Your task to perform on an android device: turn off translation in the chrome app Image 0: 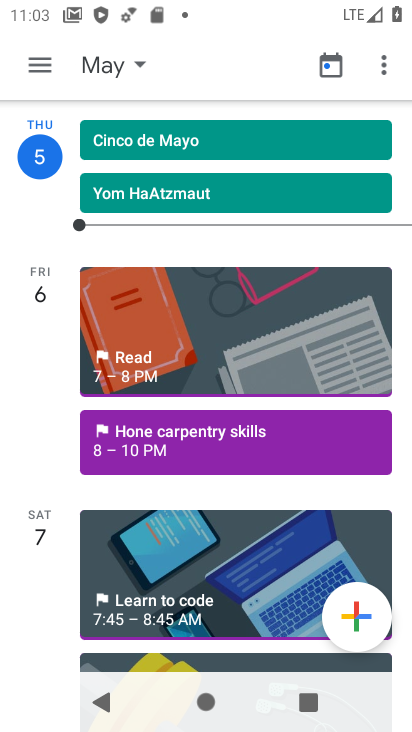
Step 0: press home button
Your task to perform on an android device: turn off translation in the chrome app Image 1: 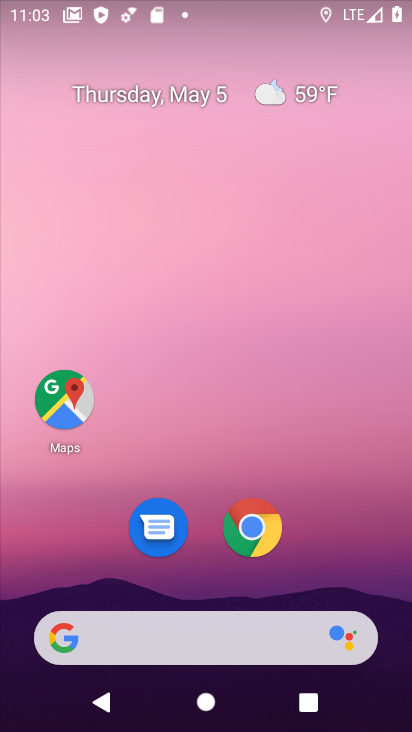
Step 1: click (265, 528)
Your task to perform on an android device: turn off translation in the chrome app Image 2: 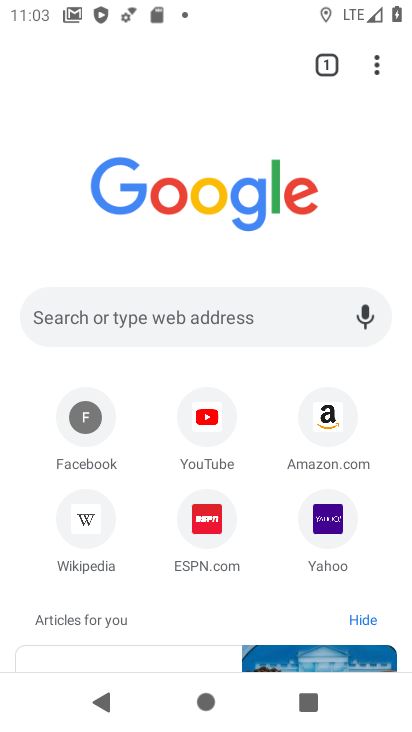
Step 2: click (374, 74)
Your task to perform on an android device: turn off translation in the chrome app Image 3: 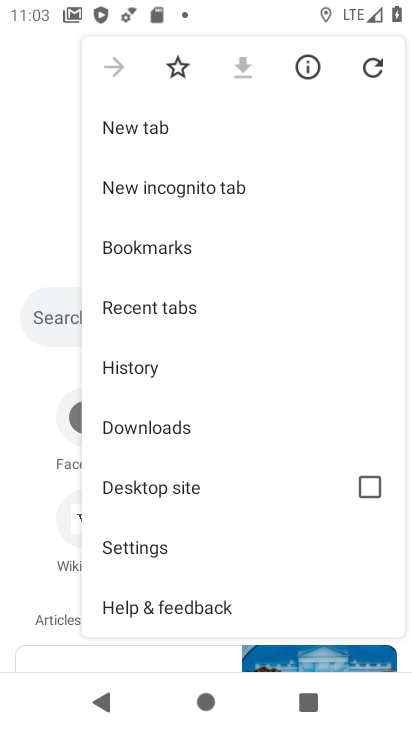
Step 3: click (164, 557)
Your task to perform on an android device: turn off translation in the chrome app Image 4: 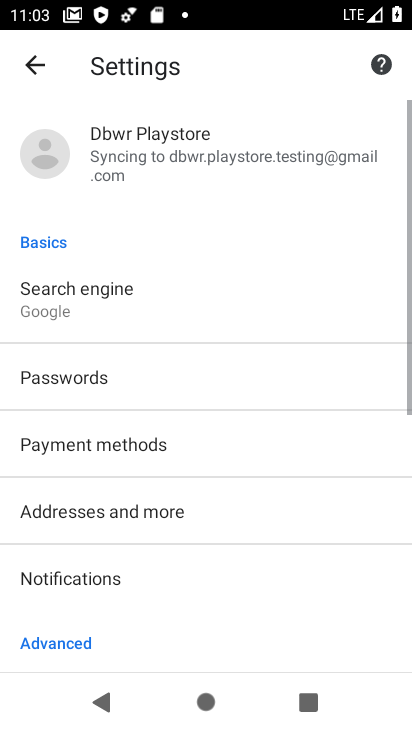
Step 4: drag from (121, 589) to (204, 231)
Your task to perform on an android device: turn off translation in the chrome app Image 5: 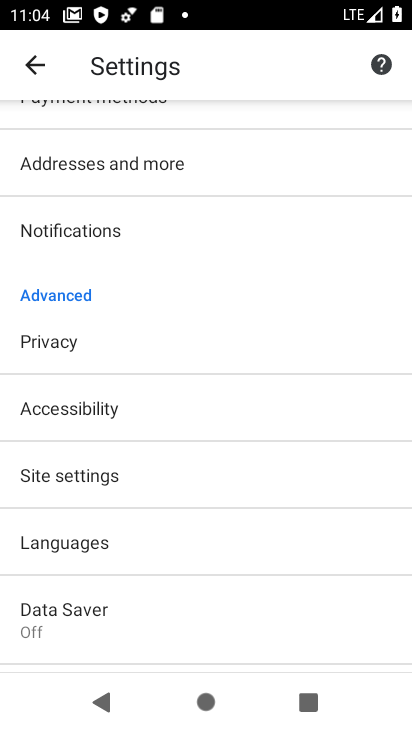
Step 5: drag from (130, 616) to (164, 438)
Your task to perform on an android device: turn off translation in the chrome app Image 6: 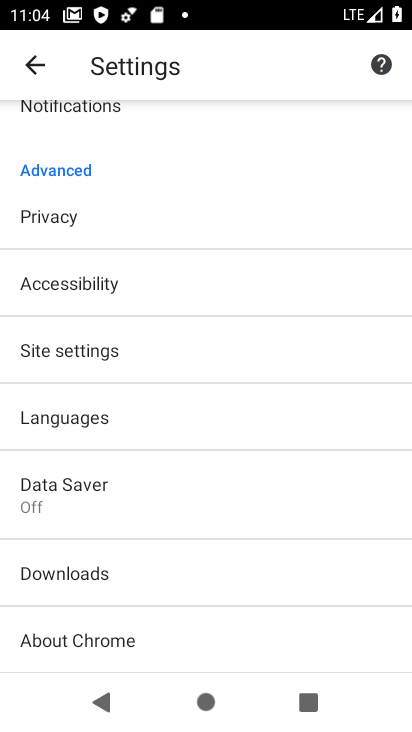
Step 6: click (109, 424)
Your task to perform on an android device: turn off translation in the chrome app Image 7: 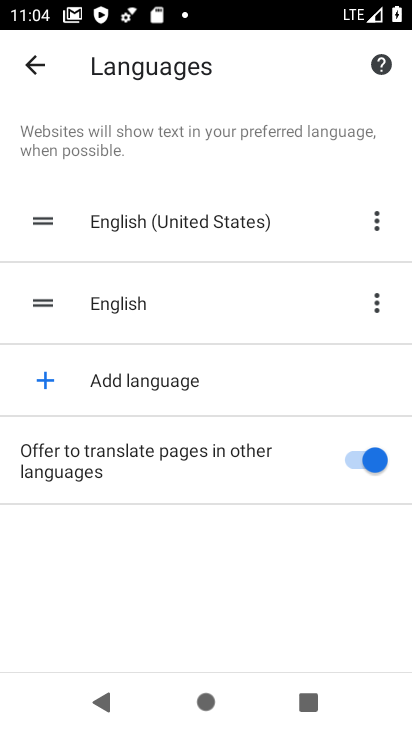
Step 7: click (260, 465)
Your task to perform on an android device: turn off translation in the chrome app Image 8: 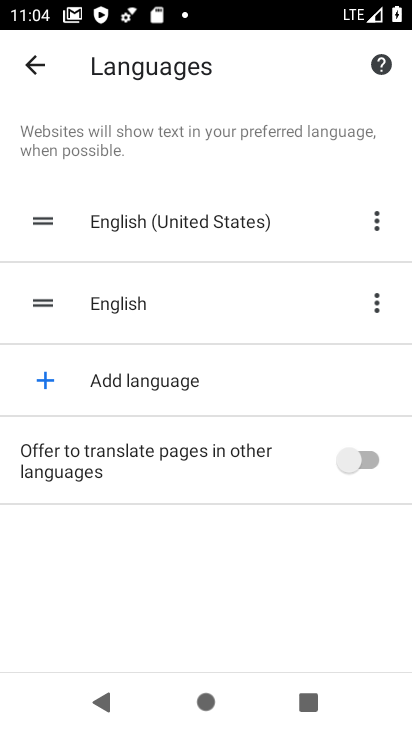
Step 8: task complete